Your task to perform on an android device: open app "VLC for Android" (install if not already installed) Image 0: 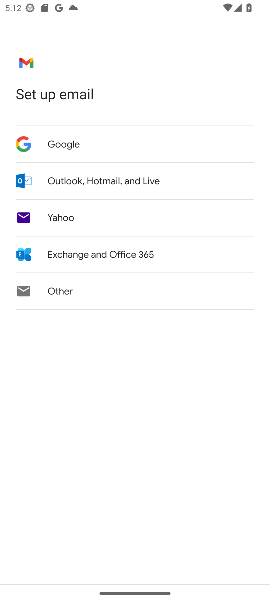
Step 0: press home button
Your task to perform on an android device: open app "VLC for Android" (install if not already installed) Image 1: 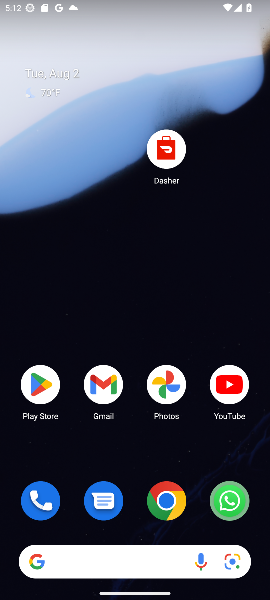
Step 1: click (44, 387)
Your task to perform on an android device: open app "VLC for Android" (install if not already installed) Image 2: 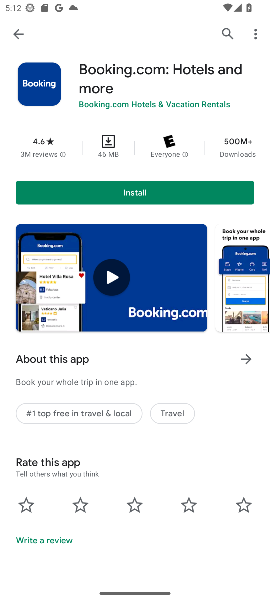
Step 2: click (225, 28)
Your task to perform on an android device: open app "VLC for Android" (install if not already installed) Image 3: 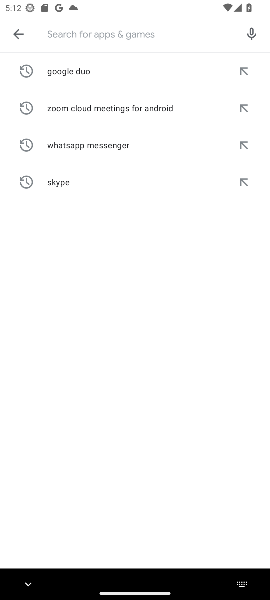
Step 3: type "VLC for Android"
Your task to perform on an android device: open app "VLC for Android" (install if not already installed) Image 4: 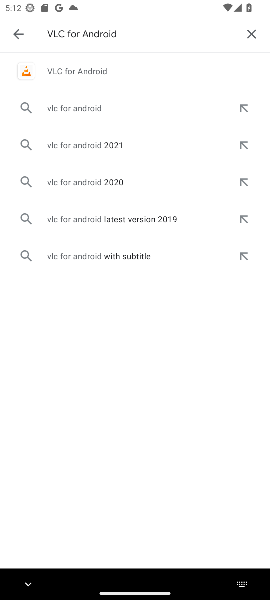
Step 4: click (73, 75)
Your task to perform on an android device: open app "VLC for Android" (install if not already installed) Image 5: 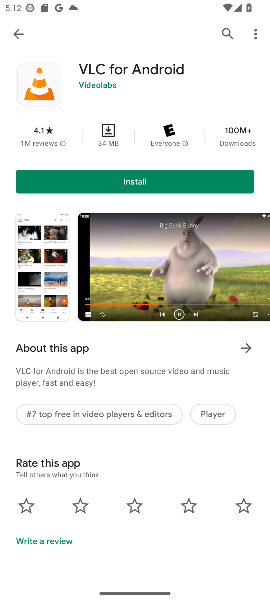
Step 5: click (112, 180)
Your task to perform on an android device: open app "VLC for Android" (install if not already installed) Image 6: 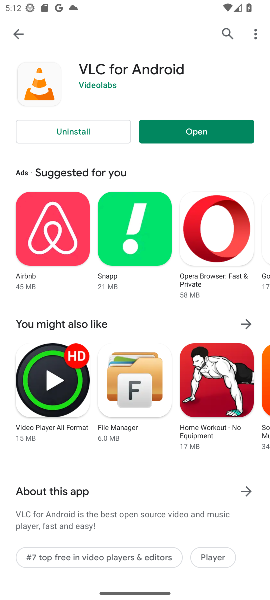
Step 6: click (183, 134)
Your task to perform on an android device: open app "VLC for Android" (install if not already installed) Image 7: 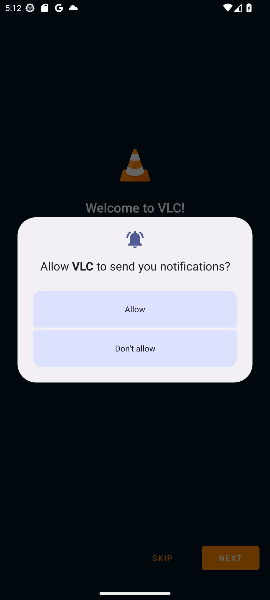
Step 7: task complete